Your task to perform on an android device: Open calendar and show me the third week of next month Image 0: 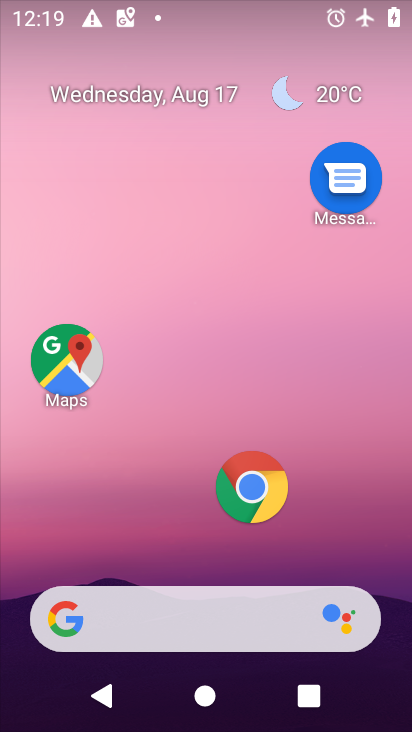
Step 0: drag from (140, 518) to (206, 56)
Your task to perform on an android device: Open calendar and show me the third week of next month Image 1: 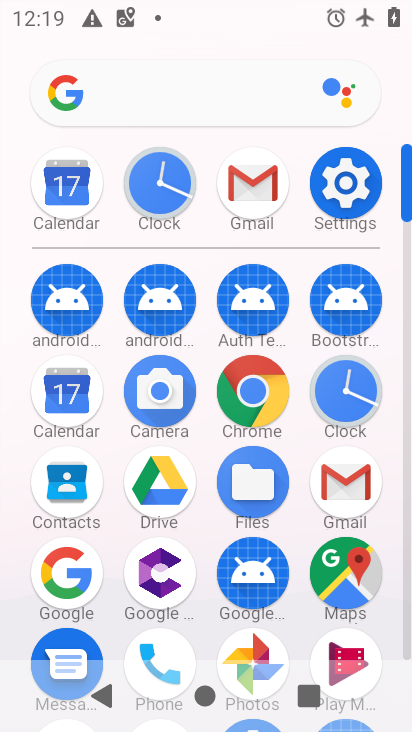
Step 1: click (63, 396)
Your task to perform on an android device: Open calendar and show me the third week of next month Image 2: 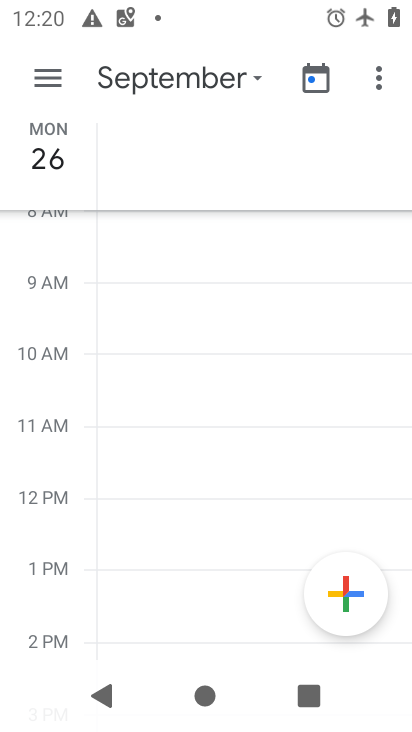
Step 2: click (194, 75)
Your task to perform on an android device: Open calendar and show me the third week of next month Image 3: 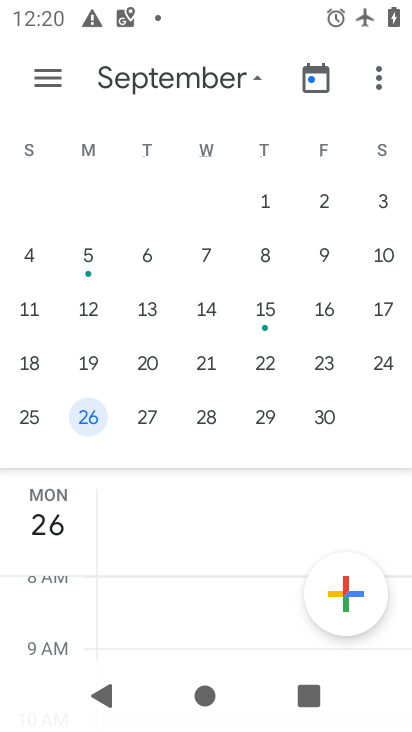
Step 3: click (94, 368)
Your task to perform on an android device: Open calendar and show me the third week of next month Image 4: 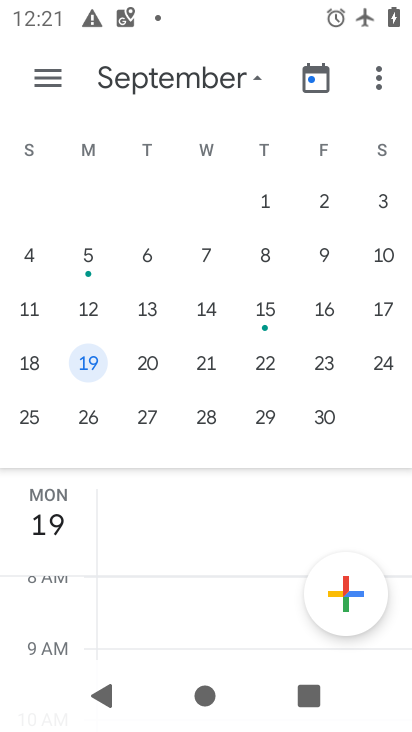
Step 4: task complete